Your task to perform on an android device: open app "Life360: Find Family & Friends" (install if not already installed) Image 0: 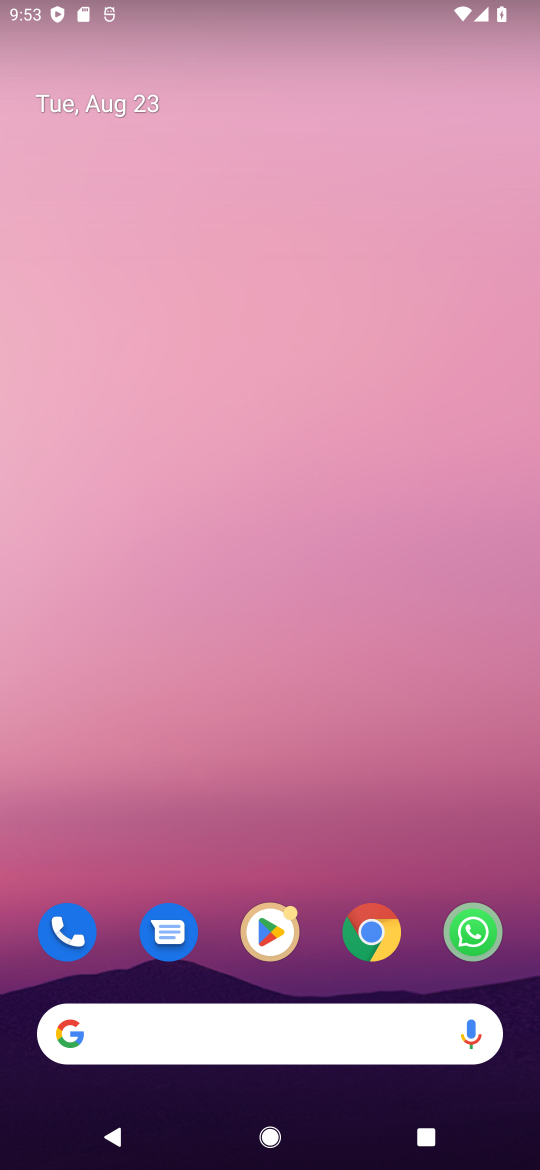
Step 0: click (279, 934)
Your task to perform on an android device: open app "Life360: Find Family & Friends" (install if not already installed) Image 1: 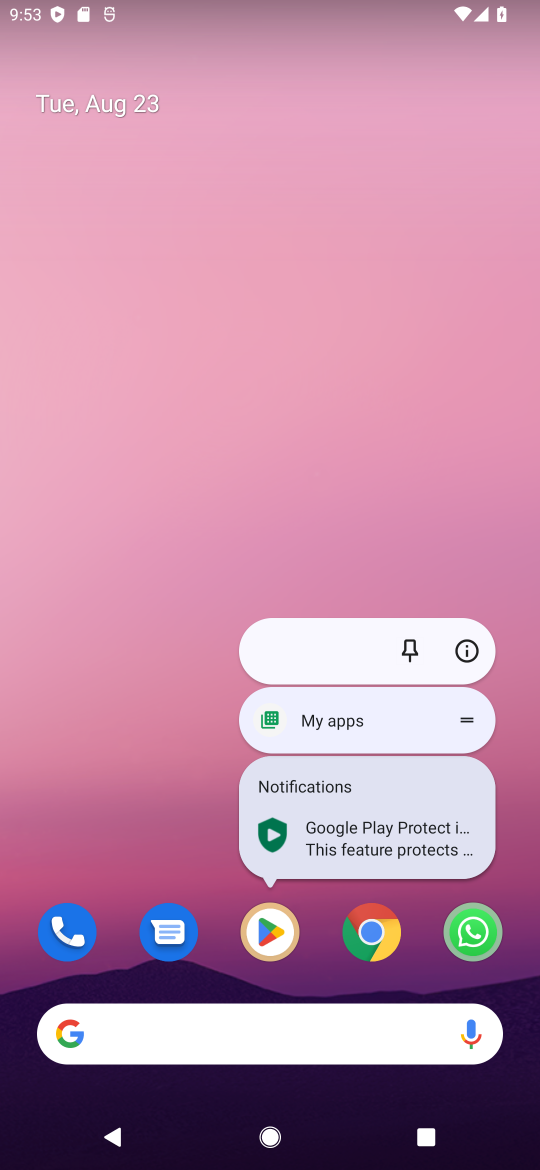
Step 1: click (273, 927)
Your task to perform on an android device: open app "Life360: Find Family & Friends" (install if not already installed) Image 2: 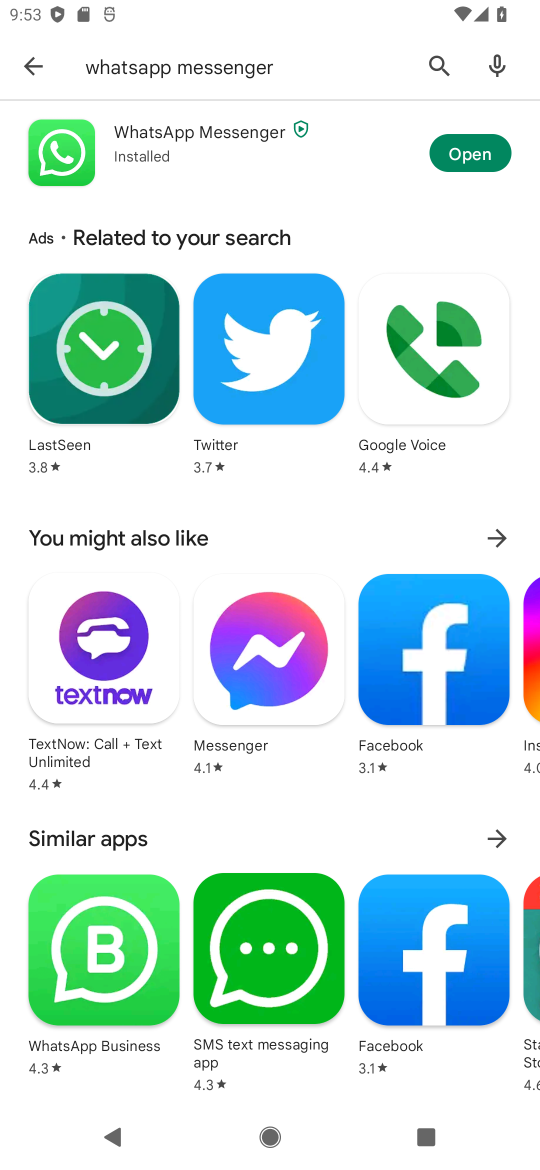
Step 2: click (424, 47)
Your task to perform on an android device: open app "Life360: Find Family & Friends" (install if not already installed) Image 3: 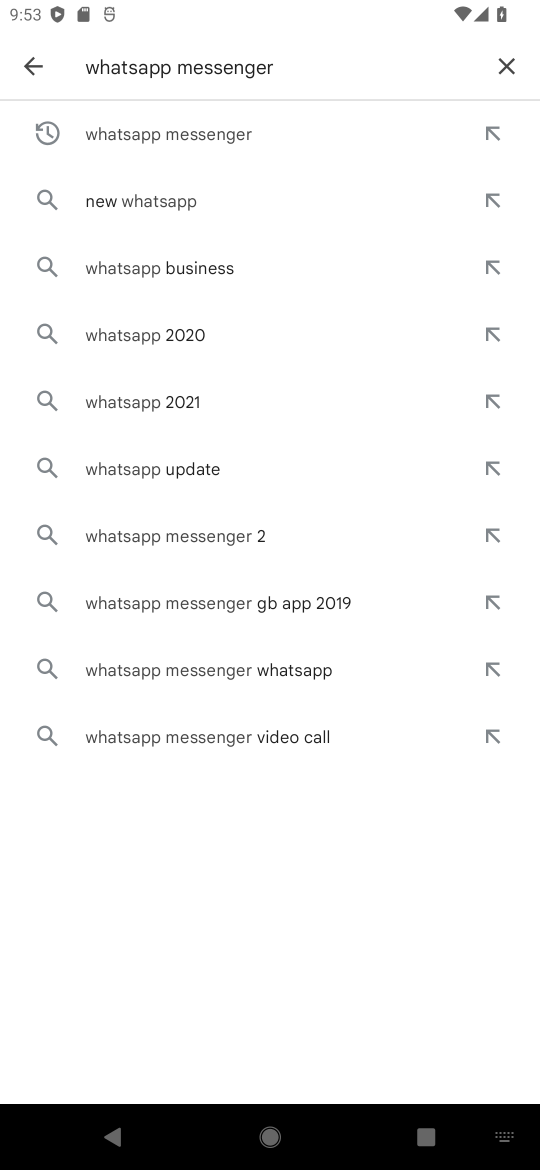
Step 3: click (512, 67)
Your task to perform on an android device: open app "Life360: Find Family & Friends" (install if not already installed) Image 4: 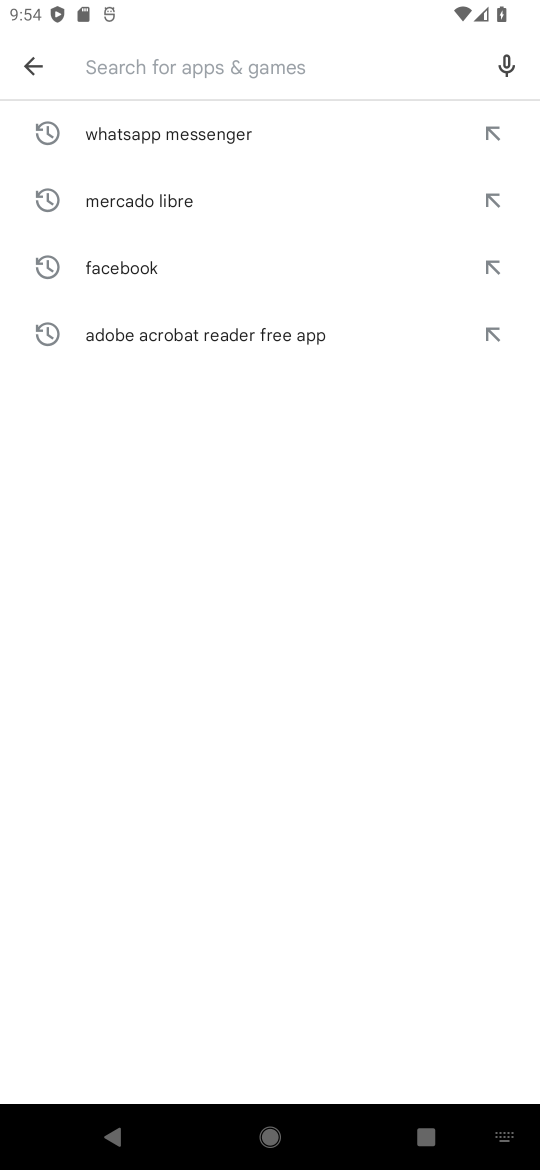
Step 4: click (217, 63)
Your task to perform on an android device: open app "Life360: Find Family & Friends" (install if not already installed) Image 5: 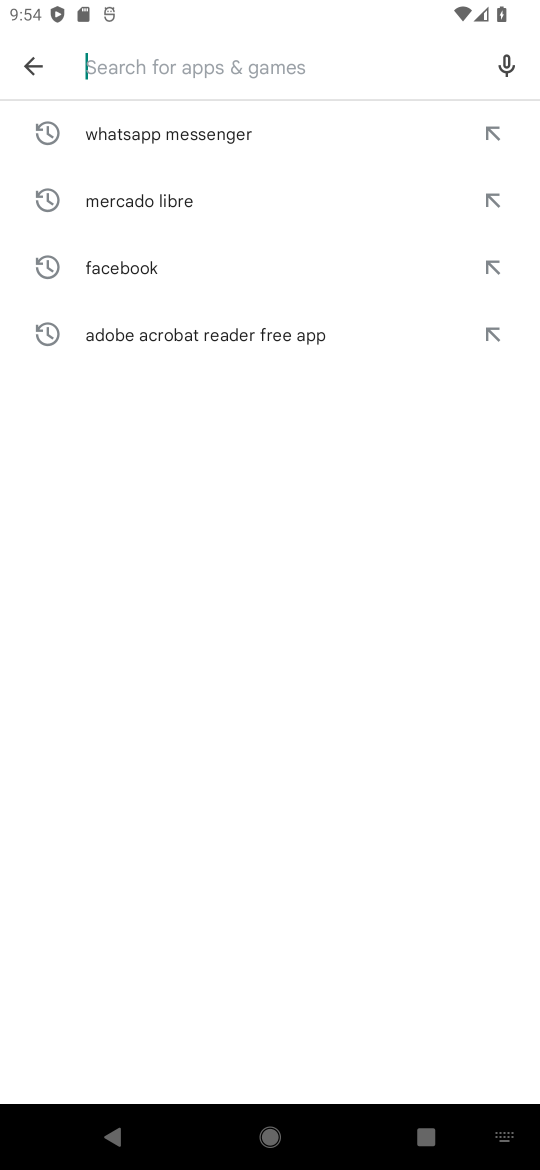
Step 5: press back button
Your task to perform on an android device: open app "Life360: Find Family & Friends" (install if not already installed) Image 6: 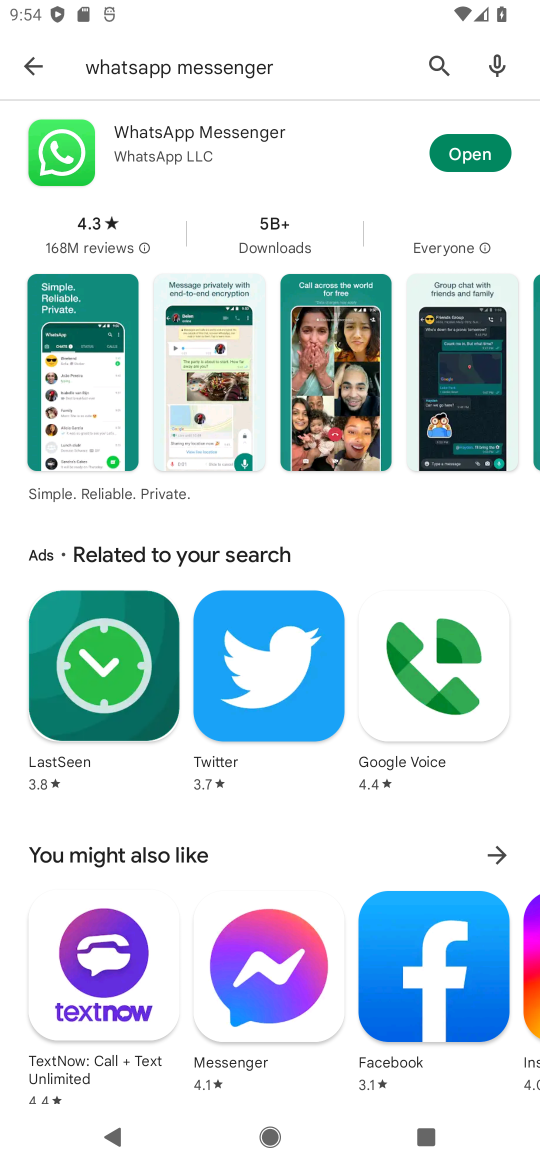
Step 6: click (431, 67)
Your task to perform on an android device: open app "Life360: Find Family & Friends" (install if not already installed) Image 7: 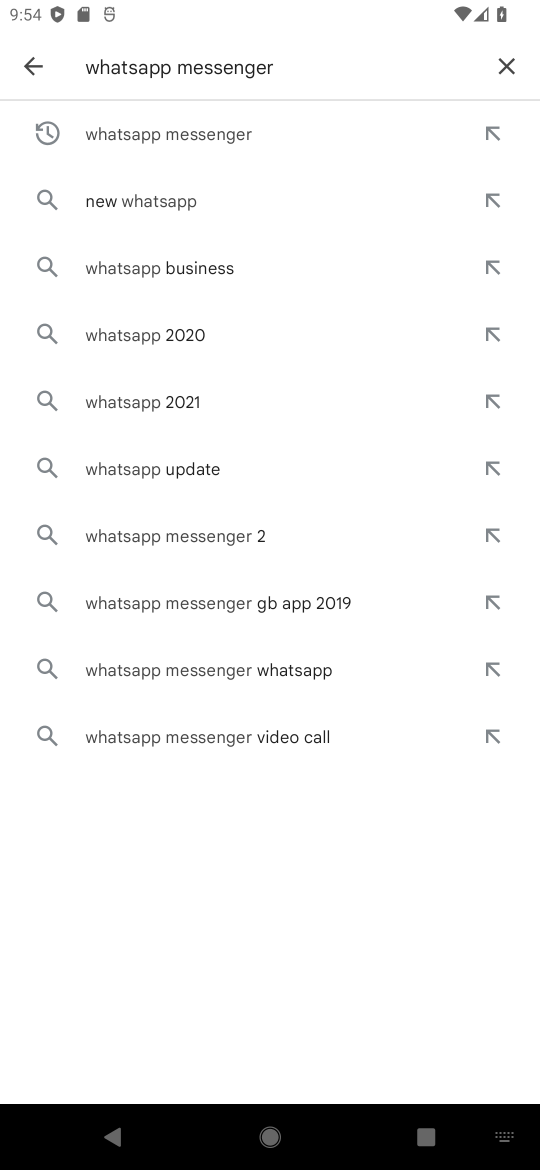
Step 7: click (507, 64)
Your task to perform on an android device: open app "Life360: Find Family & Friends" (install if not already installed) Image 8: 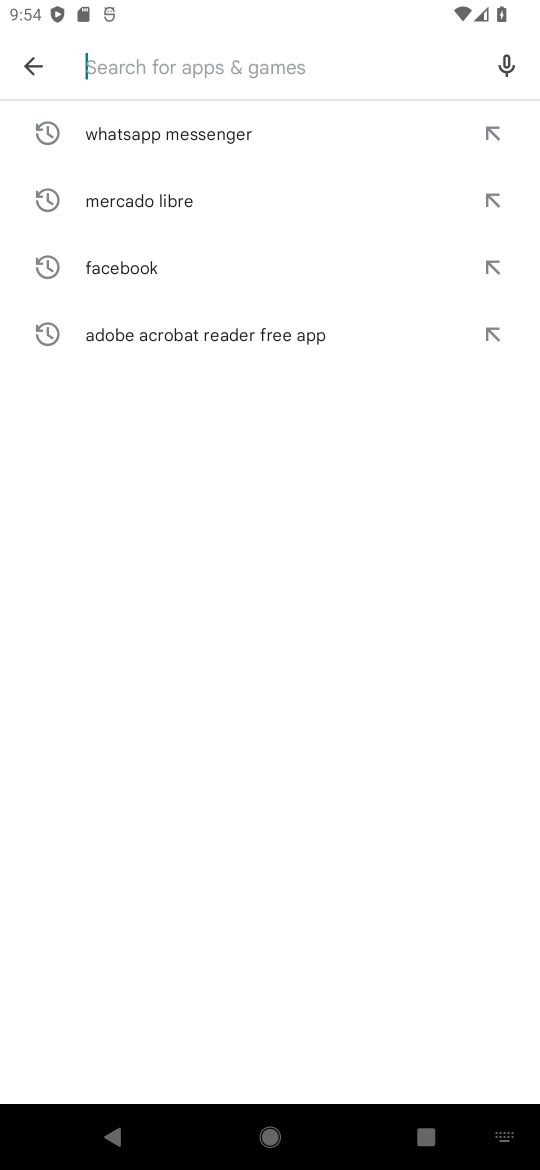
Step 8: click (155, 77)
Your task to perform on an android device: open app "Life360: Find Family & Friends" (install if not already installed) Image 9: 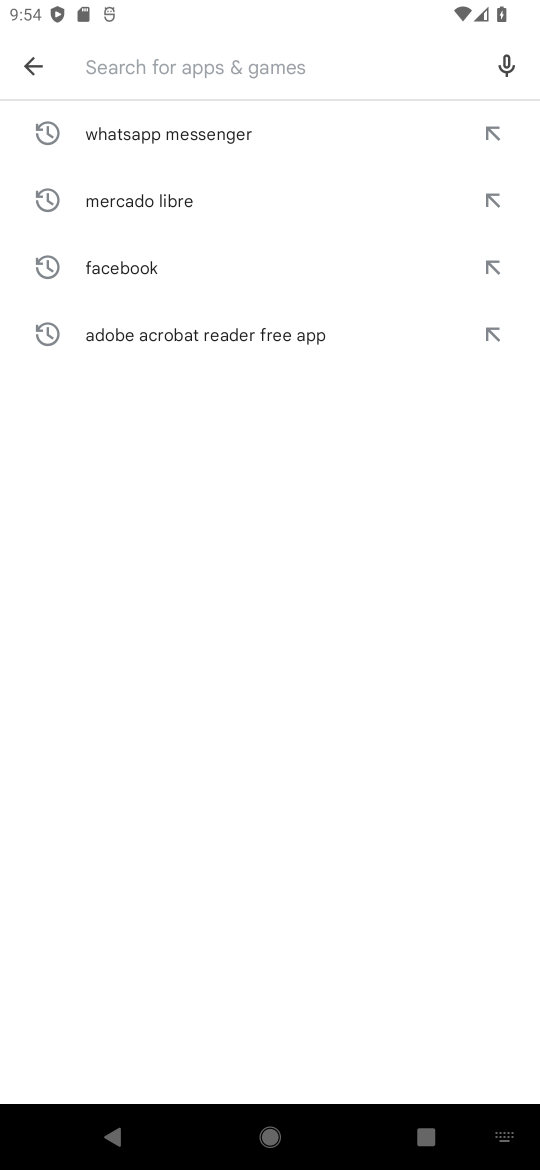
Step 9: type "Life360"
Your task to perform on an android device: open app "Life360: Find Family & Friends" (install if not already installed) Image 10: 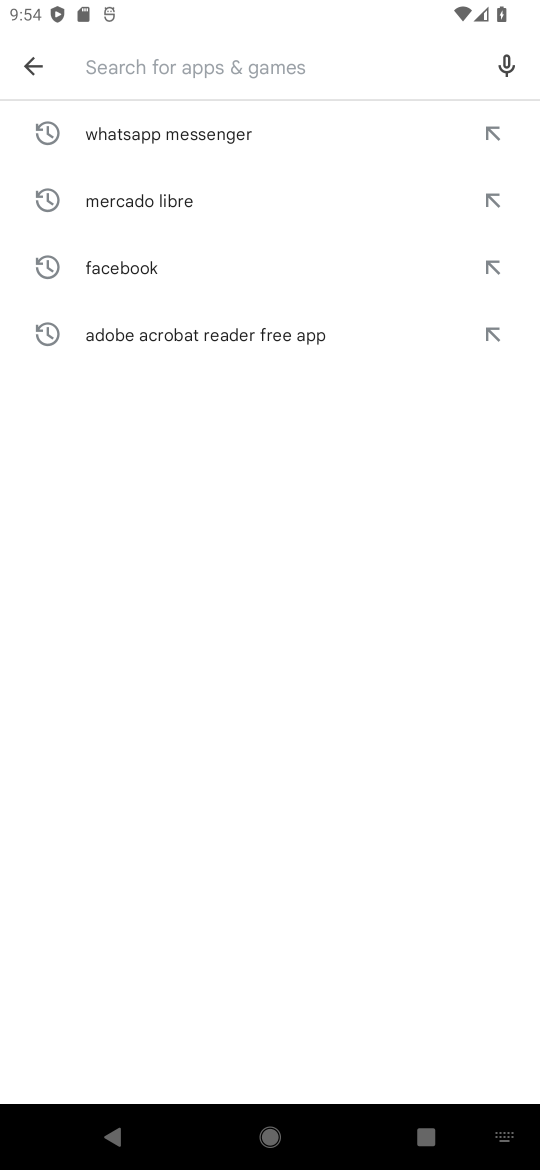
Step 10: click (393, 728)
Your task to perform on an android device: open app "Life360: Find Family & Friends" (install if not already installed) Image 11: 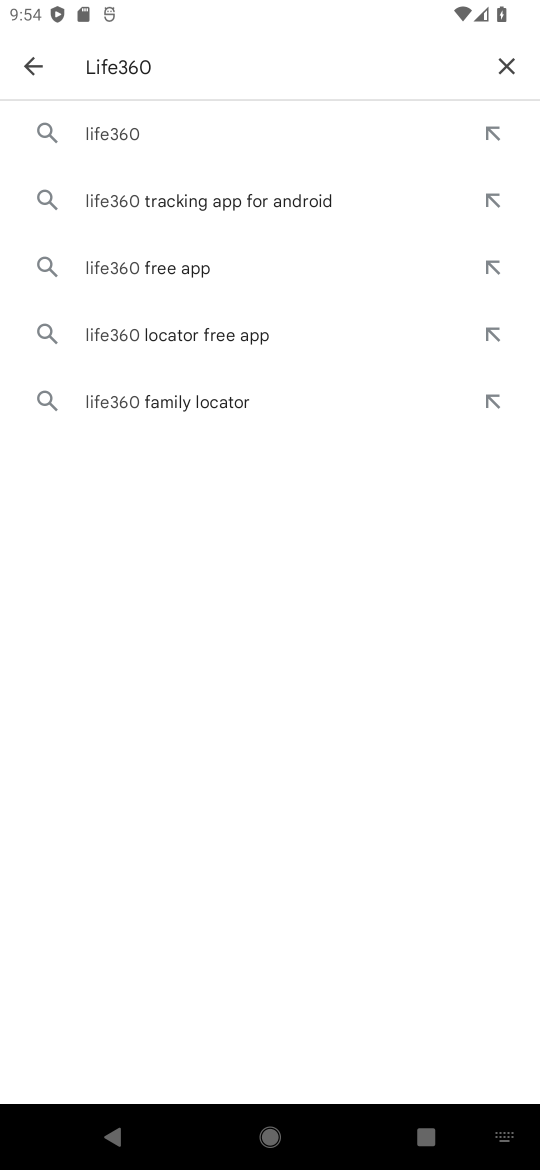
Step 11: click (128, 126)
Your task to perform on an android device: open app "Life360: Find Family & Friends" (install if not already installed) Image 12: 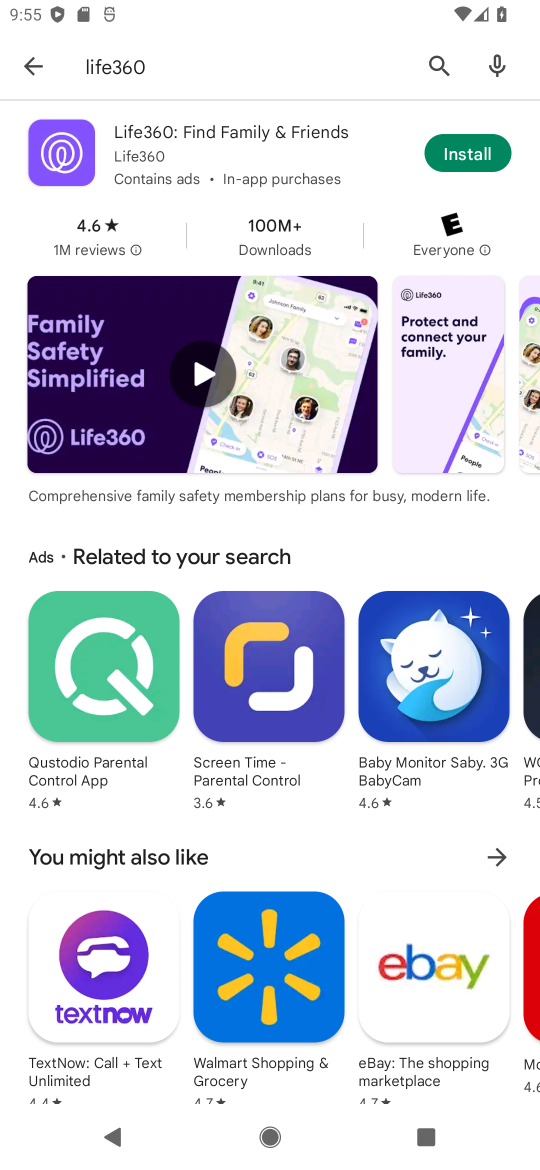
Step 12: click (467, 156)
Your task to perform on an android device: open app "Life360: Find Family & Friends" (install if not already installed) Image 13: 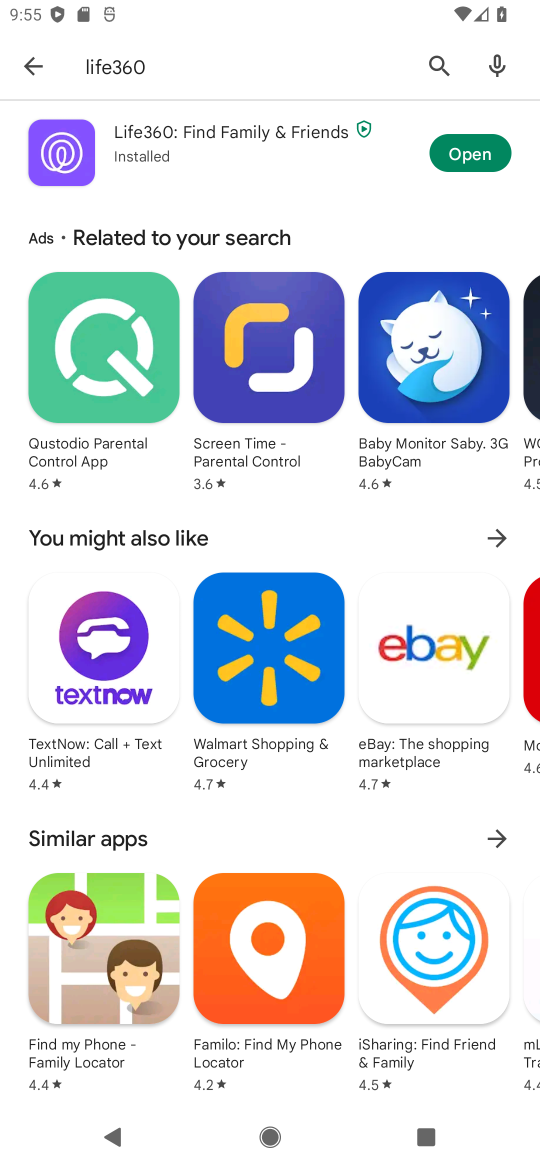
Step 13: click (447, 144)
Your task to perform on an android device: open app "Life360: Find Family & Friends" (install if not already installed) Image 14: 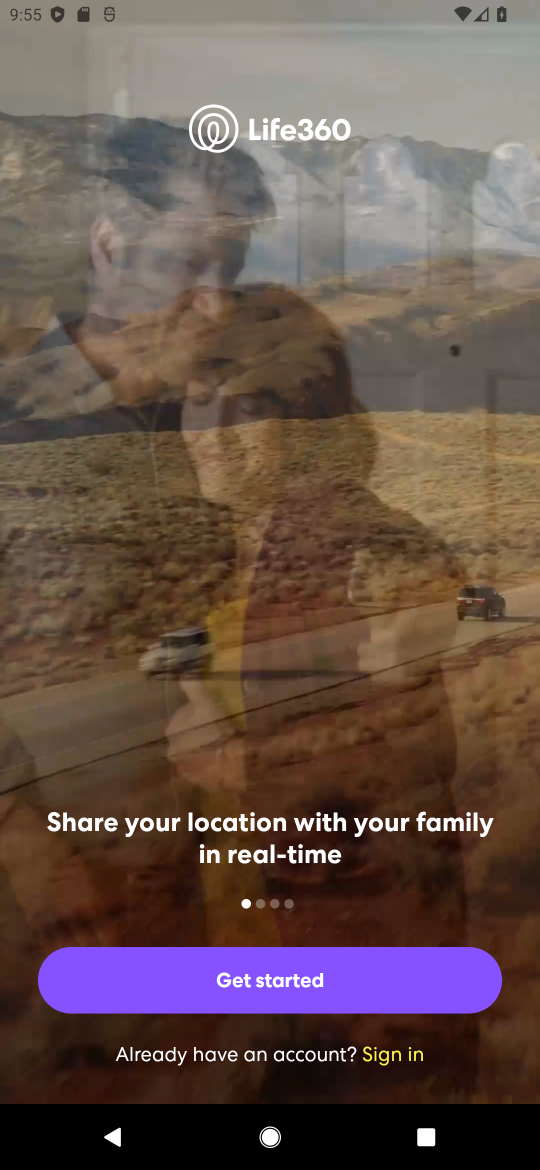
Step 14: press back button
Your task to perform on an android device: open app "Life360: Find Family & Friends" (install if not already installed) Image 15: 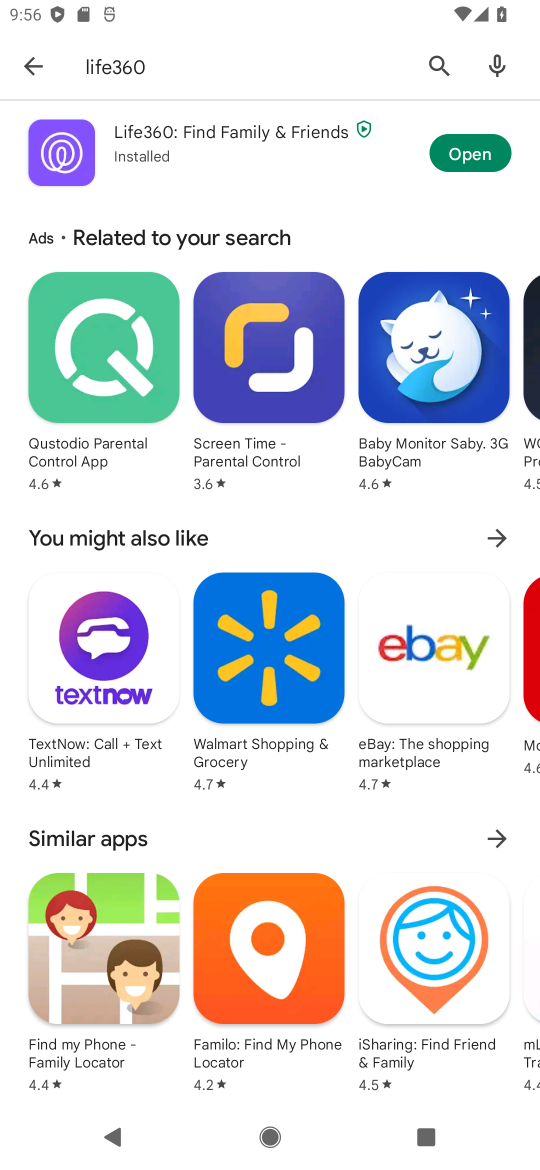
Step 15: click (454, 151)
Your task to perform on an android device: open app "Life360: Find Family & Friends" (install if not already installed) Image 16: 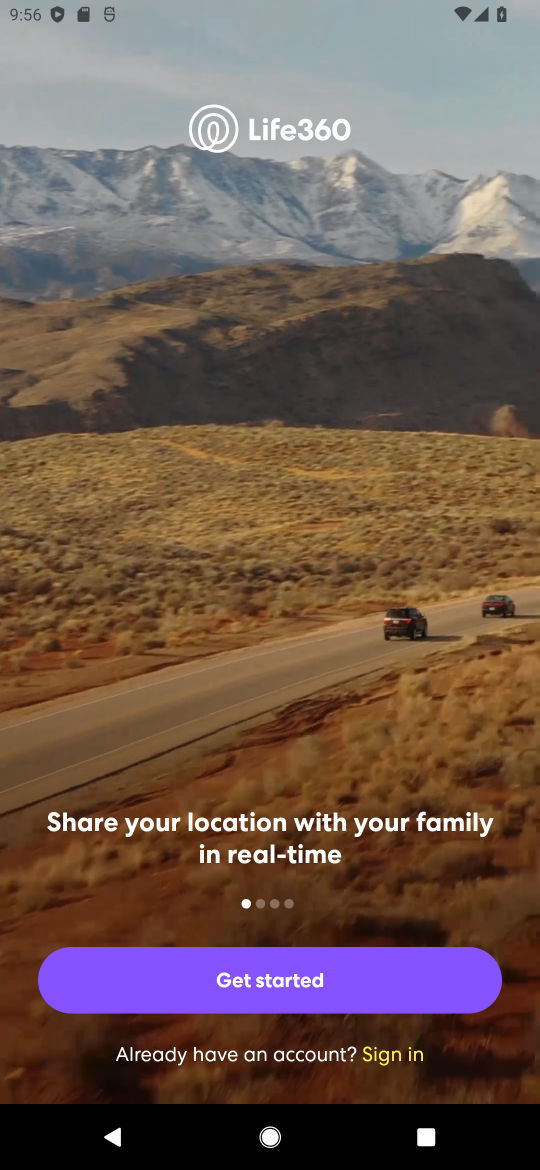
Step 16: task complete